Your task to perform on an android device: Open the phone app and click the voicemail tab. Image 0: 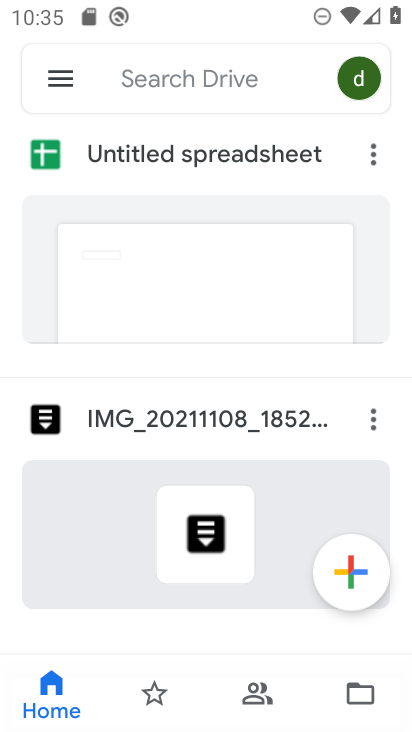
Step 0: press home button
Your task to perform on an android device: Open the phone app and click the voicemail tab. Image 1: 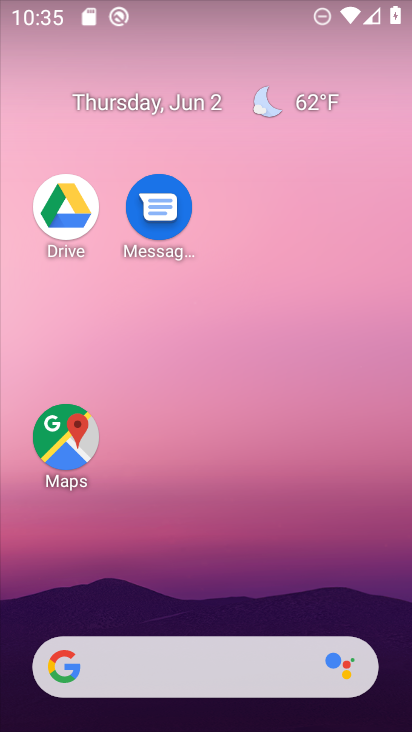
Step 1: drag from (224, 554) to (161, 71)
Your task to perform on an android device: Open the phone app and click the voicemail tab. Image 2: 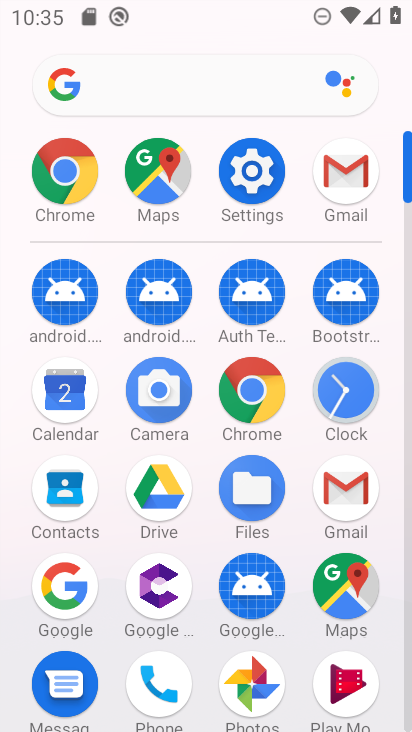
Step 2: click (148, 690)
Your task to perform on an android device: Open the phone app and click the voicemail tab. Image 3: 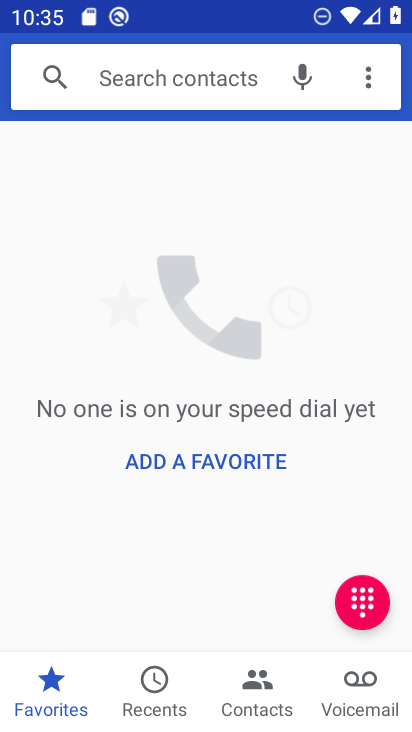
Step 3: click (362, 674)
Your task to perform on an android device: Open the phone app and click the voicemail tab. Image 4: 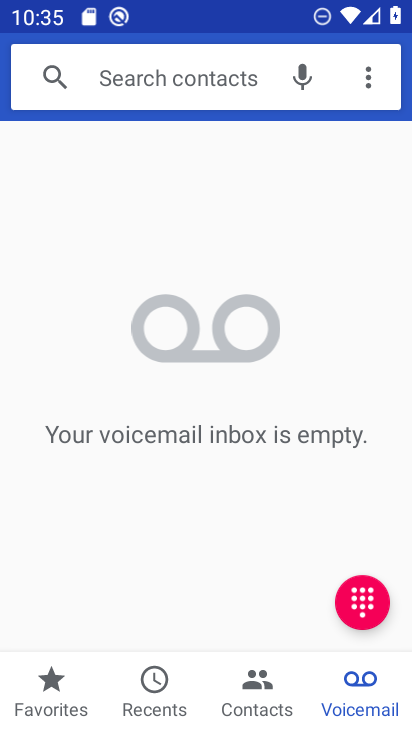
Step 4: task complete